Your task to perform on an android device: What is the recent news? Image 0: 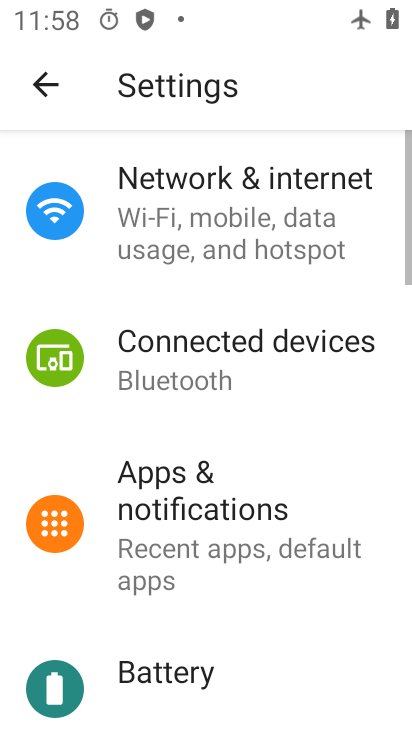
Step 0: drag from (213, 578) to (240, 230)
Your task to perform on an android device: What is the recent news? Image 1: 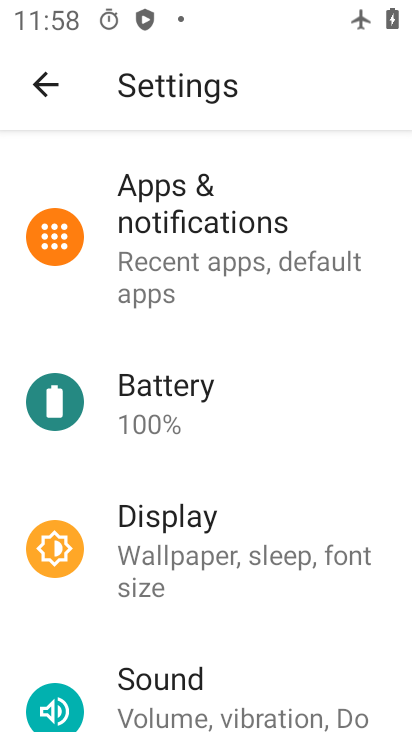
Step 1: drag from (276, 658) to (271, 431)
Your task to perform on an android device: What is the recent news? Image 2: 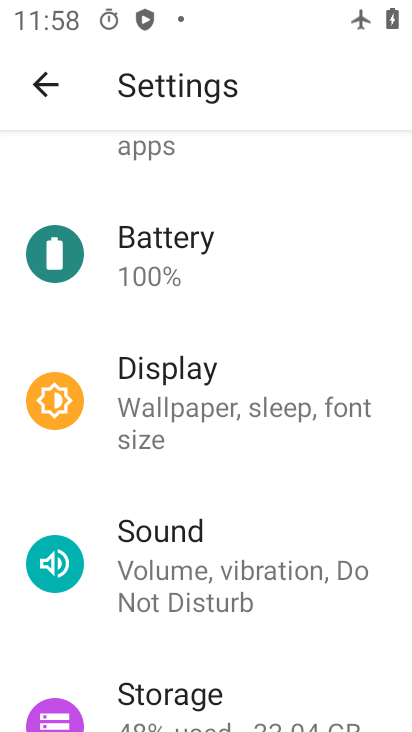
Step 2: drag from (209, 616) to (234, 347)
Your task to perform on an android device: What is the recent news? Image 3: 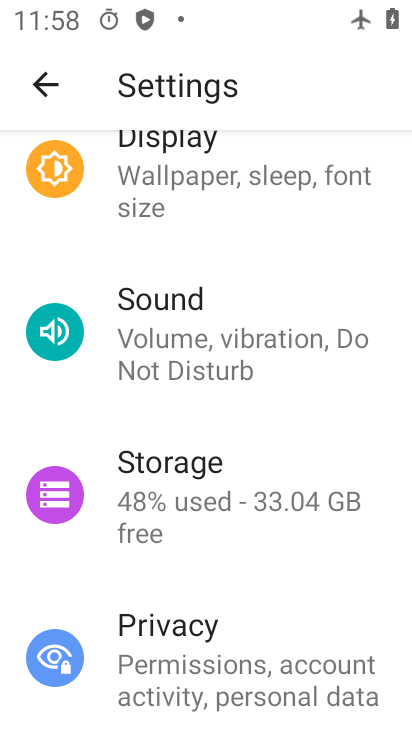
Step 3: drag from (215, 588) to (275, 301)
Your task to perform on an android device: What is the recent news? Image 4: 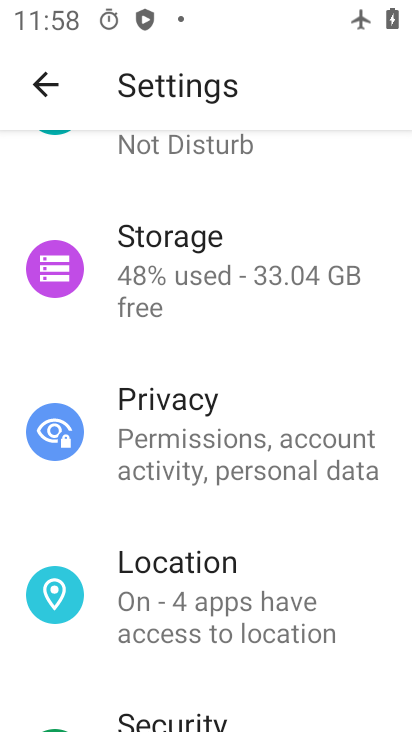
Step 4: drag from (235, 262) to (213, 718)
Your task to perform on an android device: What is the recent news? Image 5: 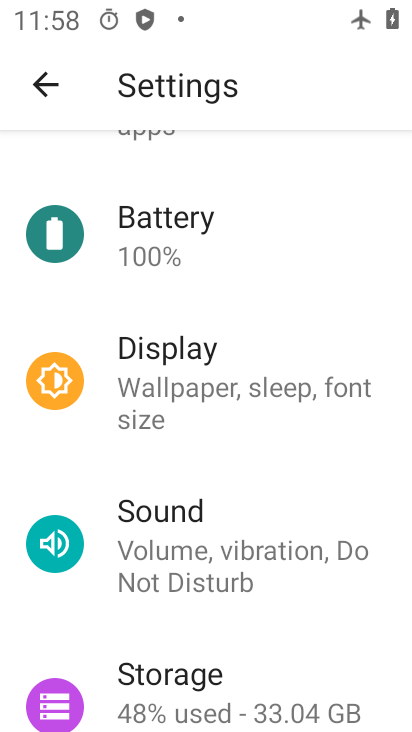
Step 5: press back button
Your task to perform on an android device: What is the recent news? Image 6: 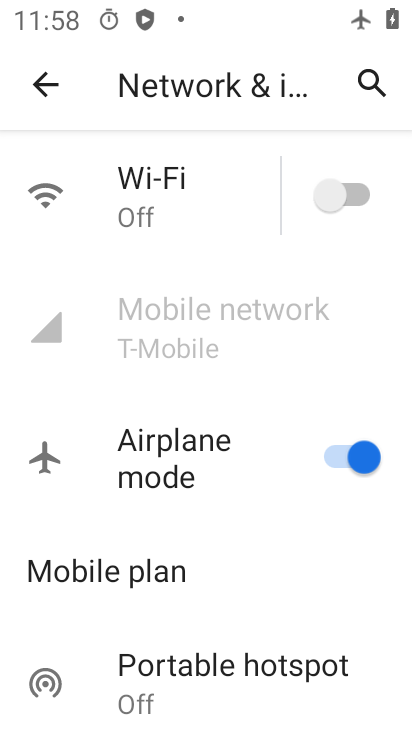
Step 6: press back button
Your task to perform on an android device: What is the recent news? Image 7: 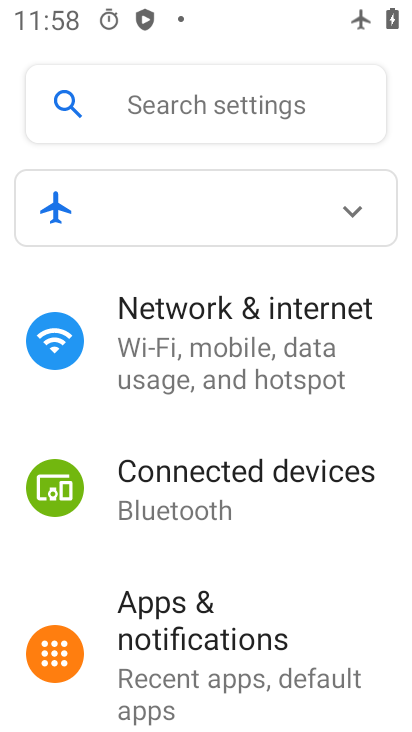
Step 7: press home button
Your task to perform on an android device: What is the recent news? Image 8: 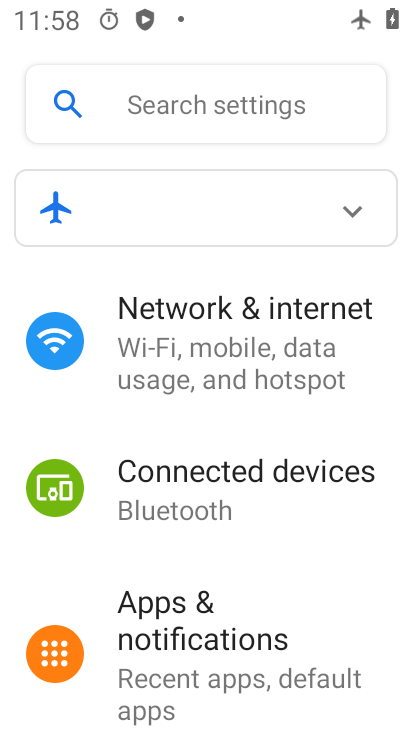
Step 8: press home button
Your task to perform on an android device: What is the recent news? Image 9: 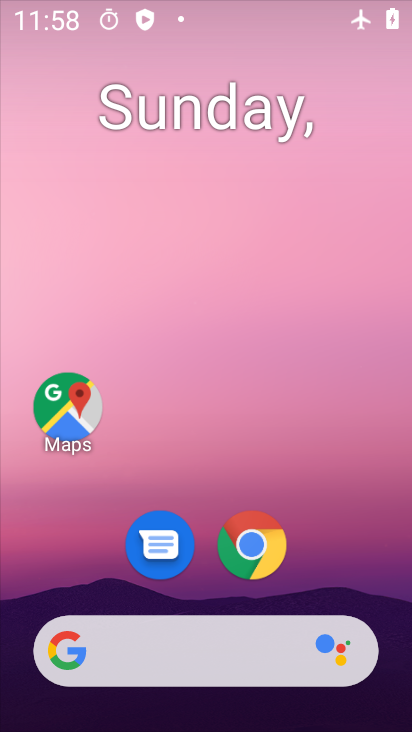
Step 9: drag from (114, 619) to (208, 106)
Your task to perform on an android device: What is the recent news? Image 10: 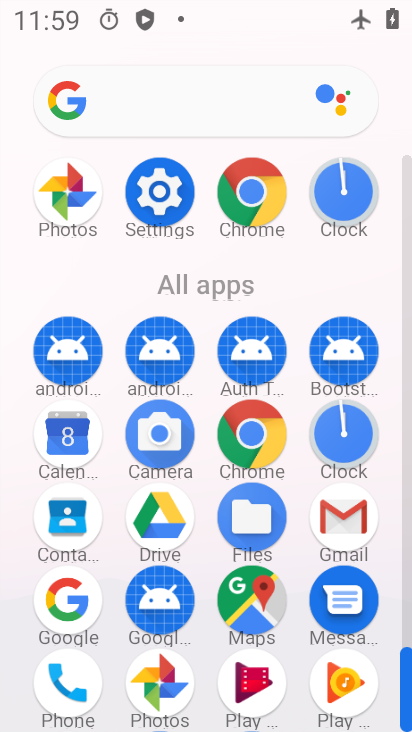
Step 10: click (194, 114)
Your task to perform on an android device: What is the recent news? Image 11: 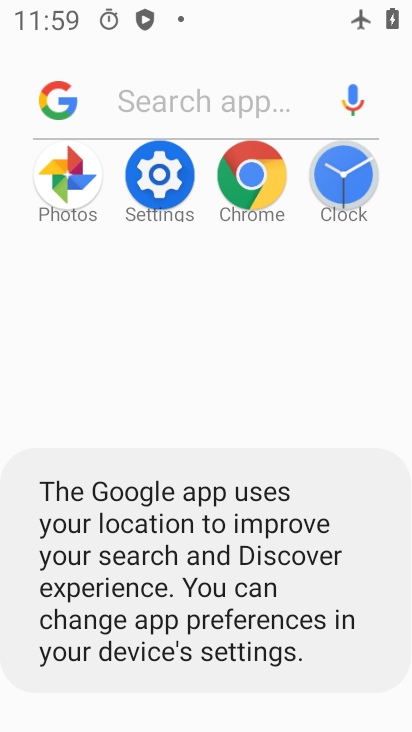
Step 11: click (222, 108)
Your task to perform on an android device: What is the recent news? Image 12: 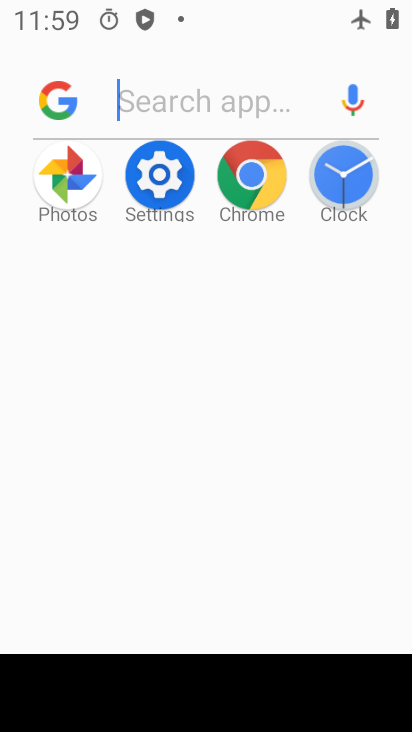
Step 12: type "recent news"
Your task to perform on an android device: What is the recent news? Image 13: 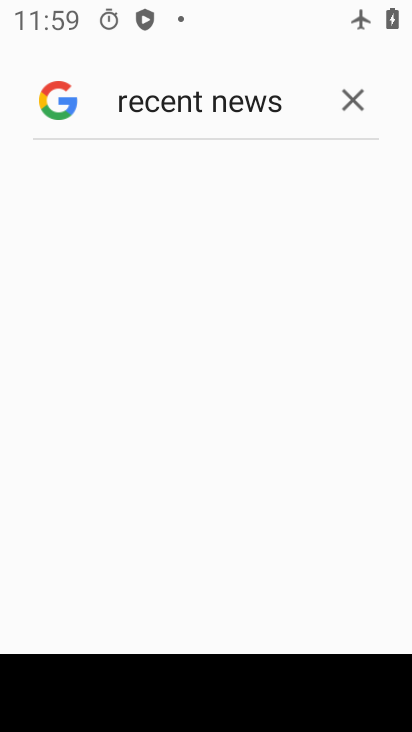
Step 13: task complete